Your task to perform on an android device: Open display settings Image 0: 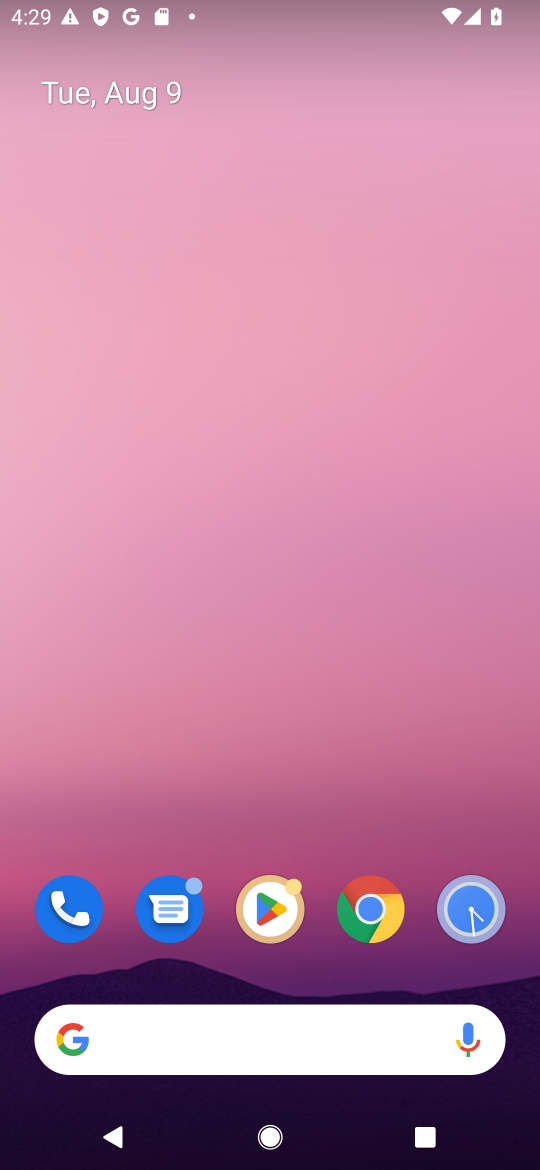
Step 0: drag from (424, 822) to (395, 12)
Your task to perform on an android device: Open display settings Image 1: 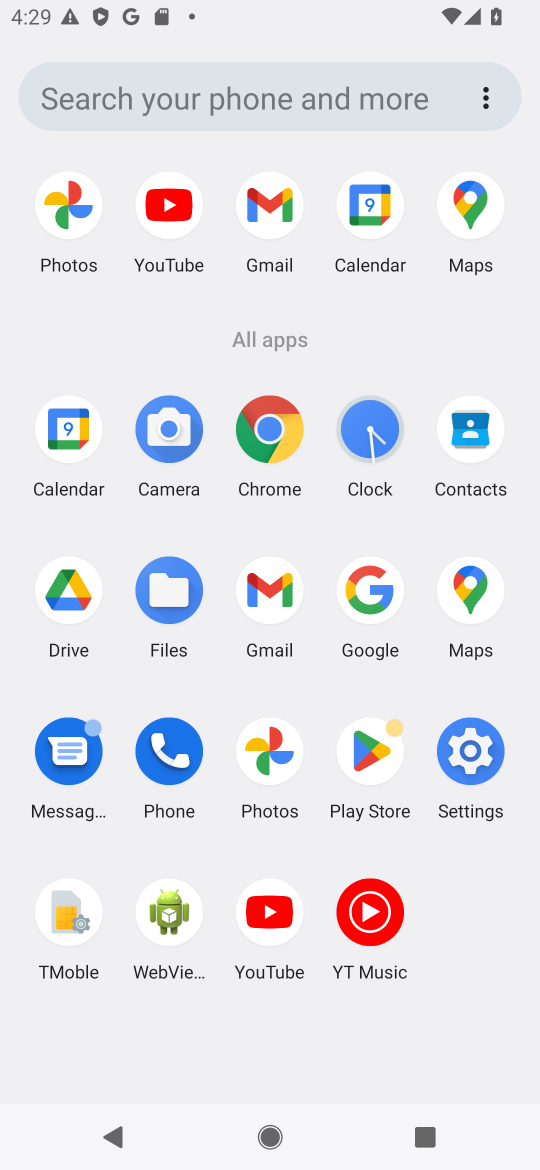
Step 1: click (459, 756)
Your task to perform on an android device: Open display settings Image 2: 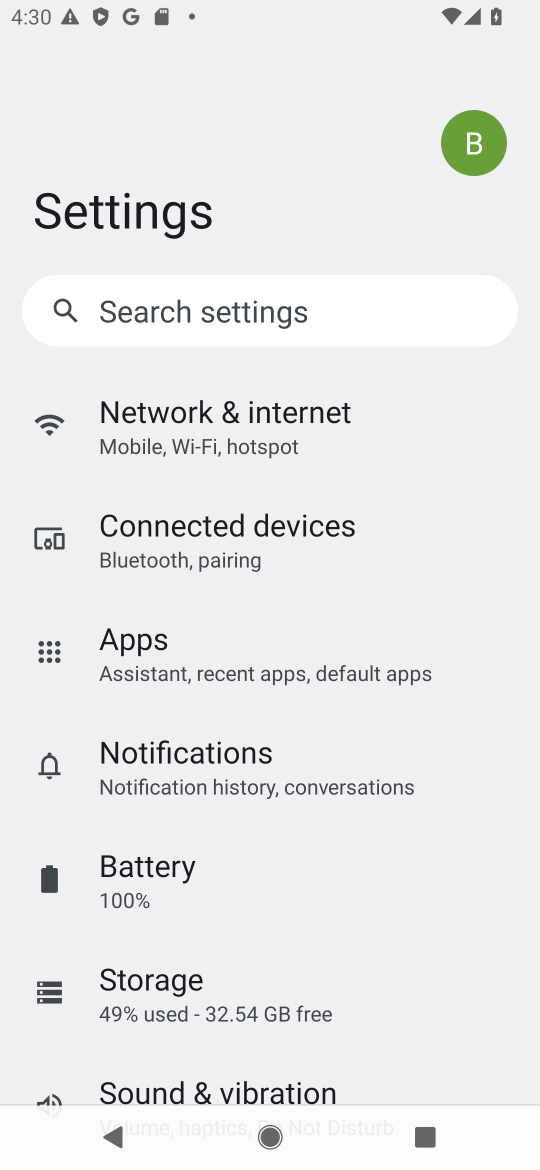
Step 2: drag from (325, 917) to (291, 260)
Your task to perform on an android device: Open display settings Image 3: 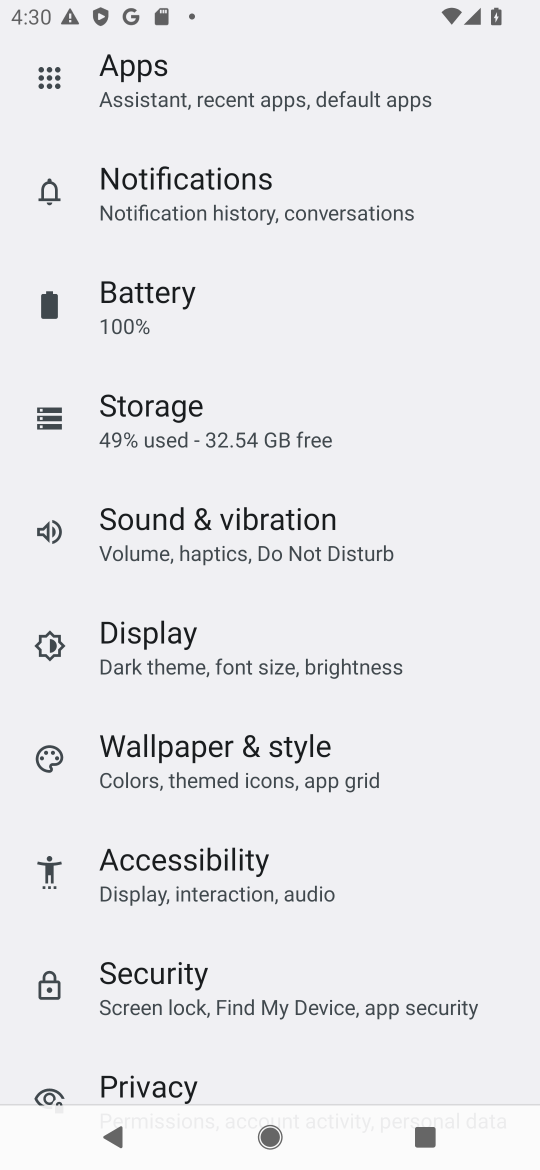
Step 3: click (182, 649)
Your task to perform on an android device: Open display settings Image 4: 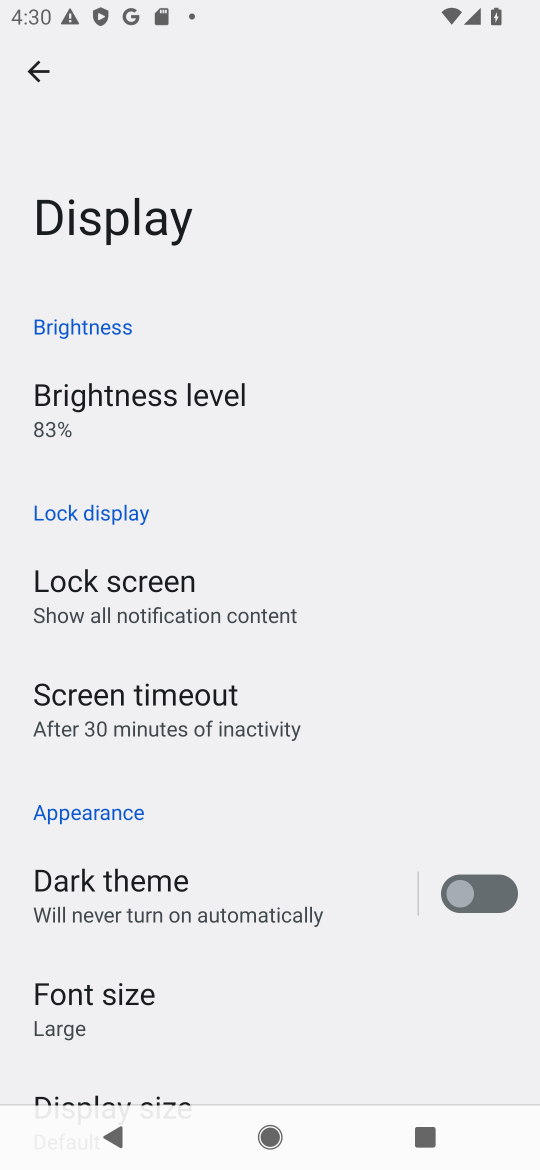
Step 4: task complete